Your task to perform on an android device: see sites visited before in the chrome app Image 0: 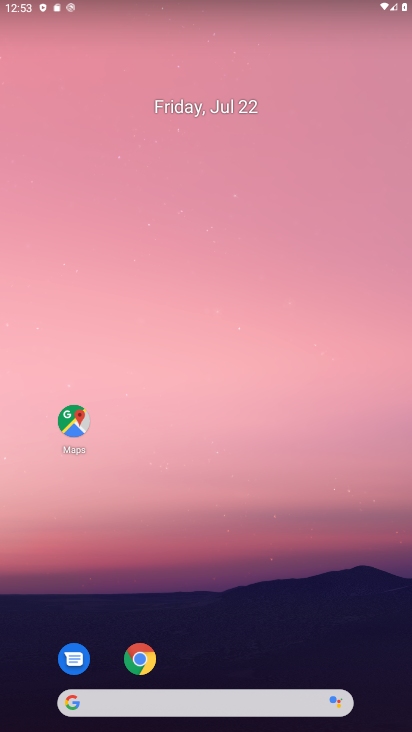
Step 0: click (146, 650)
Your task to perform on an android device: see sites visited before in the chrome app Image 1: 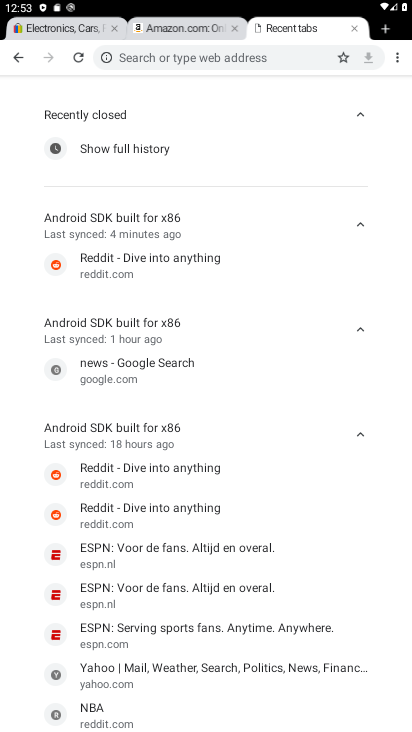
Step 1: task complete